Your task to perform on an android device: turn on translation in the chrome app Image 0: 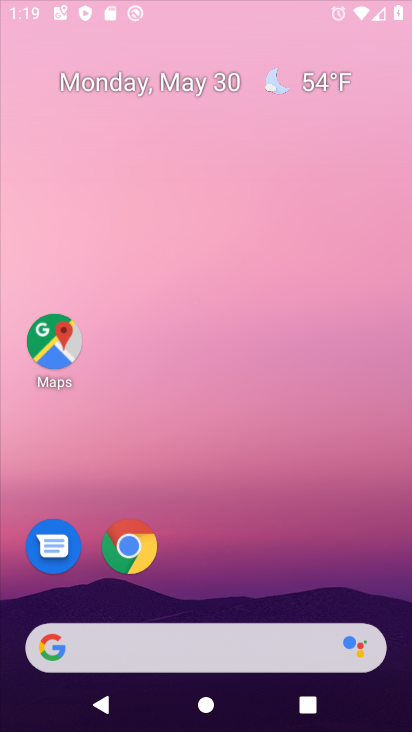
Step 0: press home button
Your task to perform on an android device: turn on translation in the chrome app Image 1: 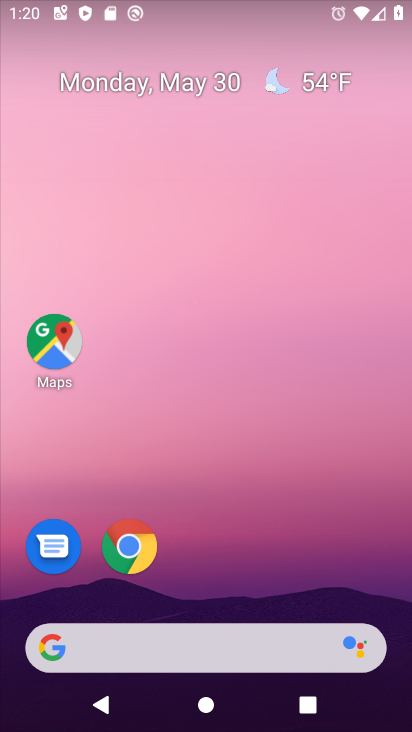
Step 1: drag from (252, 612) to (231, 567)
Your task to perform on an android device: turn on translation in the chrome app Image 2: 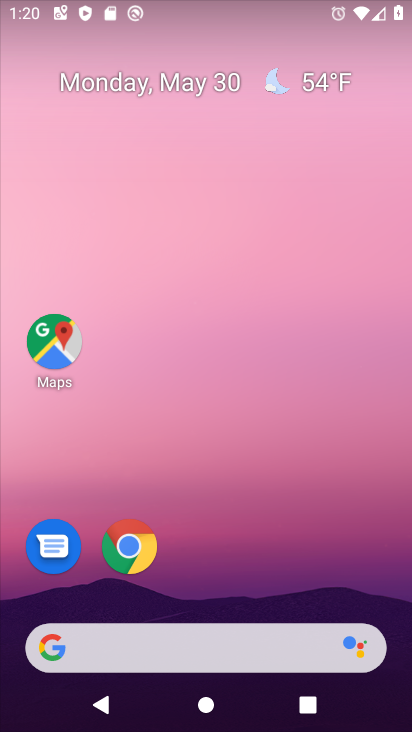
Step 2: click (134, 547)
Your task to perform on an android device: turn on translation in the chrome app Image 3: 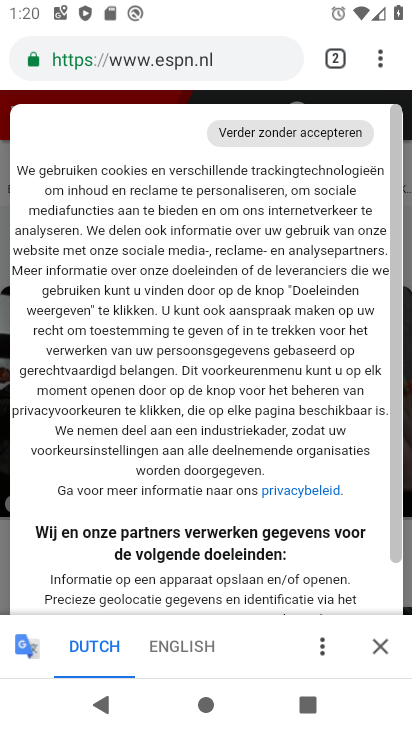
Step 3: drag from (386, 57) to (235, 590)
Your task to perform on an android device: turn on translation in the chrome app Image 4: 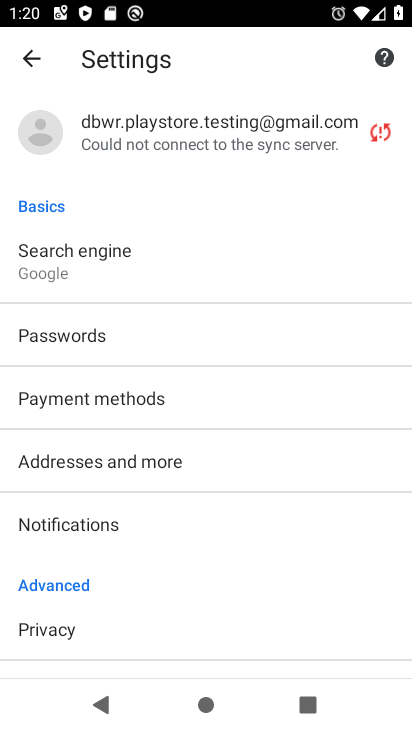
Step 4: drag from (209, 594) to (219, 306)
Your task to perform on an android device: turn on translation in the chrome app Image 5: 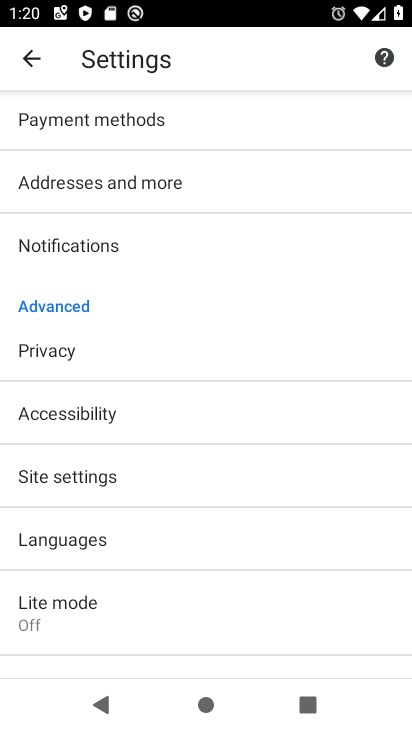
Step 5: click (60, 534)
Your task to perform on an android device: turn on translation in the chrome app Image 6: 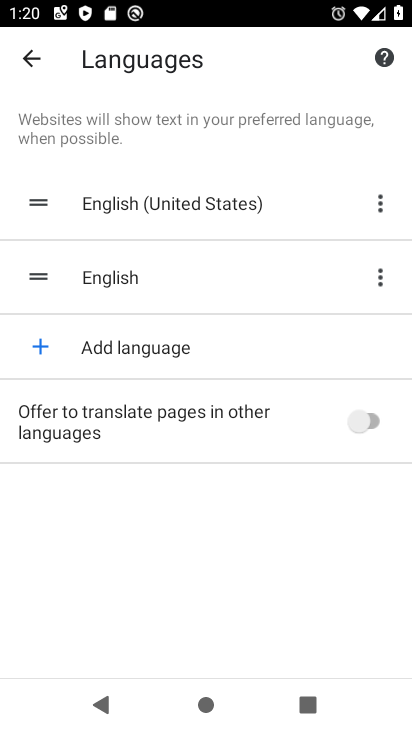
Step 6: click (366, 420)
Your task to perform on an android device: turn on translation in the chrome app Image 7: 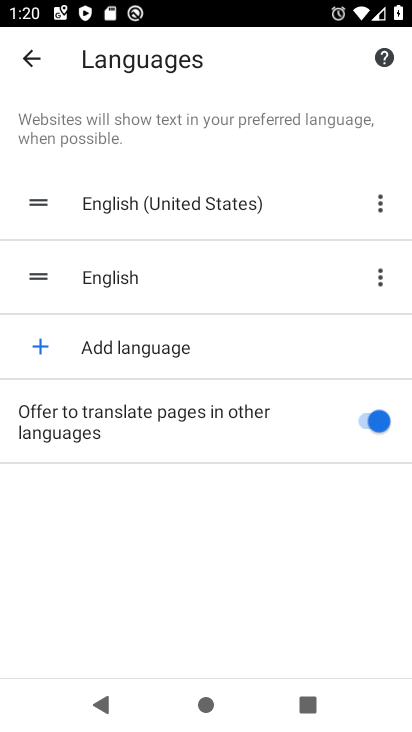
Step 7: task complete